Your task to perform on an android device: turn off notifications settings in the gmail app Image 0: 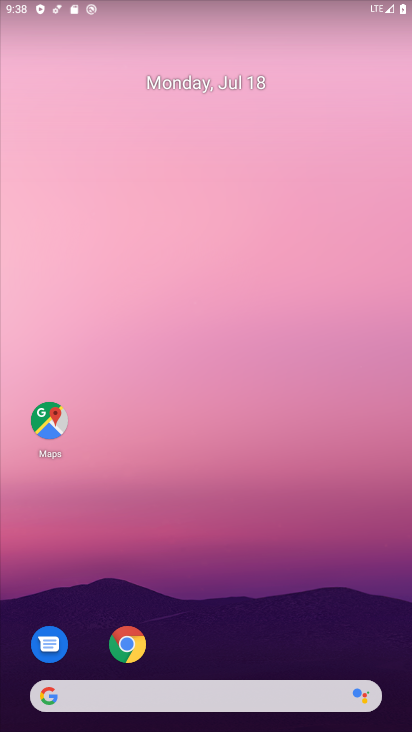
Step 0: drag from (317, 588) to (324, 297)
Your task to perform on an android device: turn off notifications settings in the gmail app Image 1: 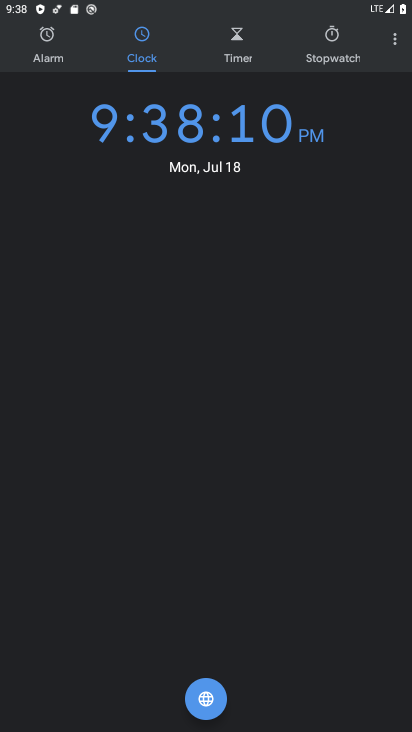
Step 1: press home button
Your task to perform on an android device: turn off notifications settings in the gmail app Image 2: 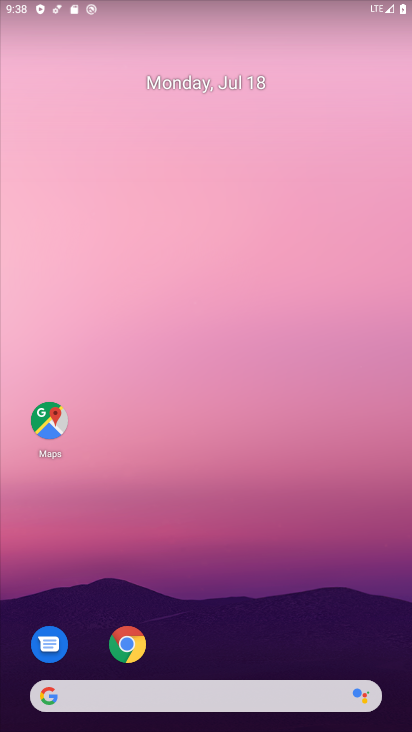
Step 2: drag from (331, 631) to (351, 176)
Your task to perform on an android device: turn off notifications settings in the gmail app Image 3: 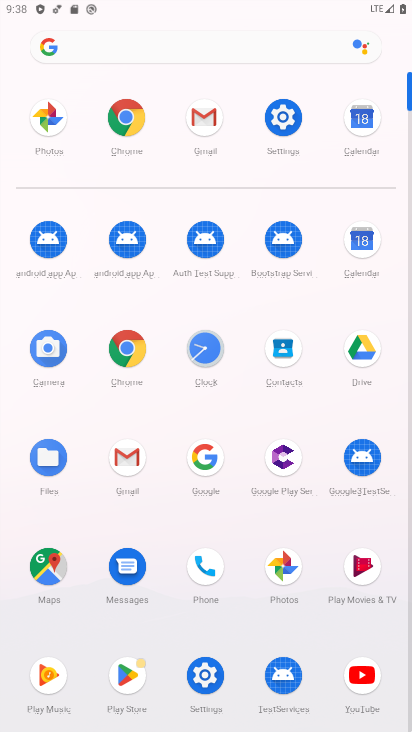
Step 3: click (121, 461)
Your task to perform on an android device: turn off notifications settings in the gmail app Image 4: 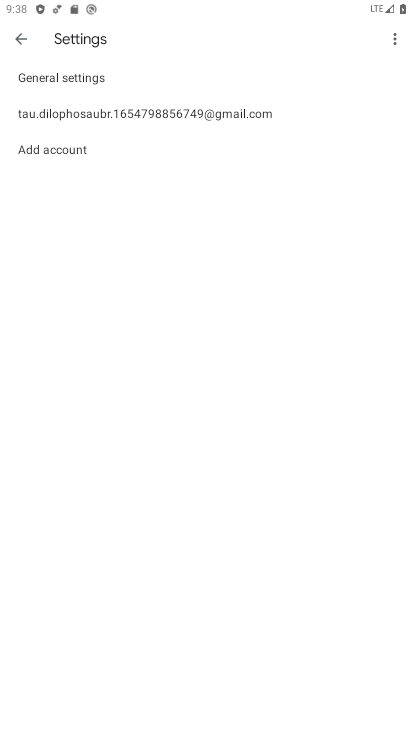
Step 4: click (174, 115)
Your task to perform on an android device: turn off notifications settings in the gmail app Image 5: 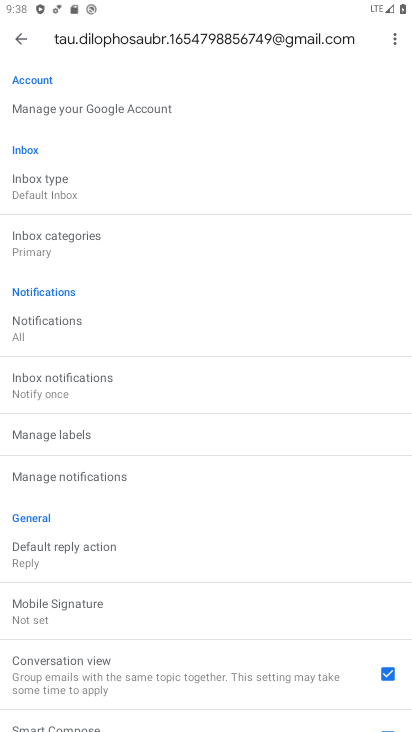
Step 5: drag from (261, 480) to (280, 375)
Your task to perform on an android device: turn off notifications settings in the gmail app Image 6: 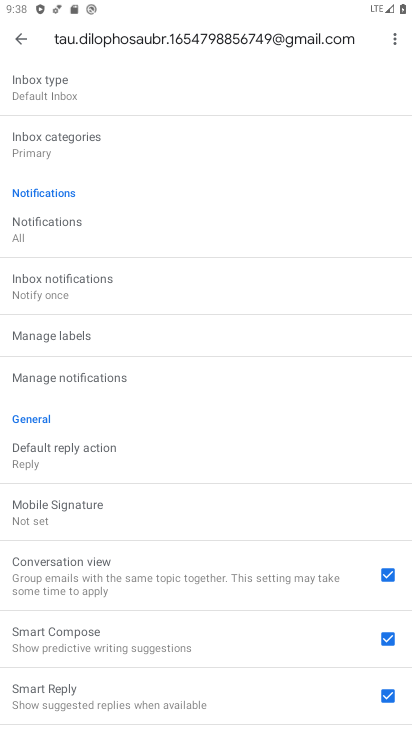
Step 6: drag from (257, 628) to (270, 477)
Your task to perform on an android device: turn off notifications settings in the gmail app Image 7: 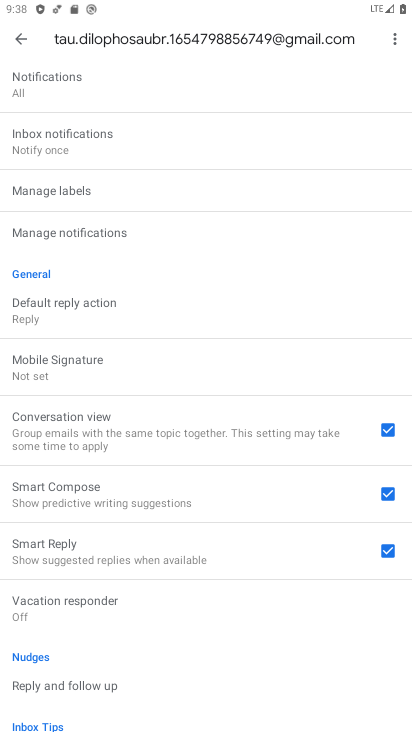
Step 7: drag from (273, 620) to (272, 374)
Your task to perform on an android device: turn off notifications settings in the gmail app Image 8: 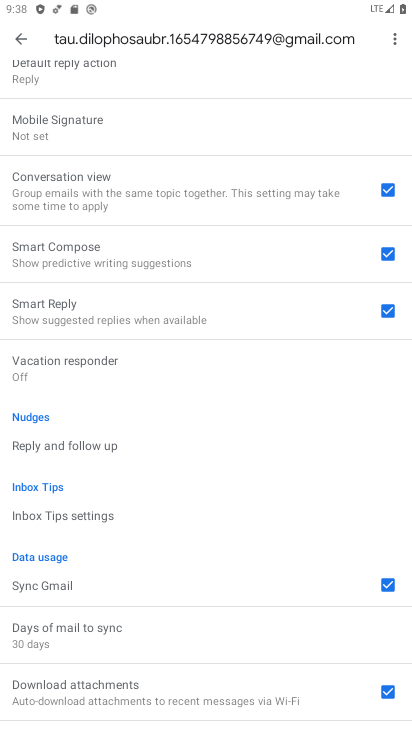
Step 8: drag from (266, 235) to (266, 361)
Your task to perform on an android device: turn off notifications settings in the gmail app Image 9: 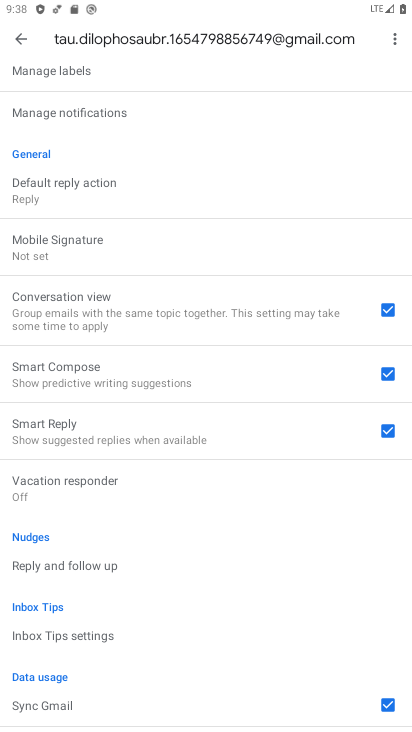
Step 9: drag from (249, 224) to (251, 366)
Your task to perform on an android device: turn off notifications settings in the gmail app Image 10: 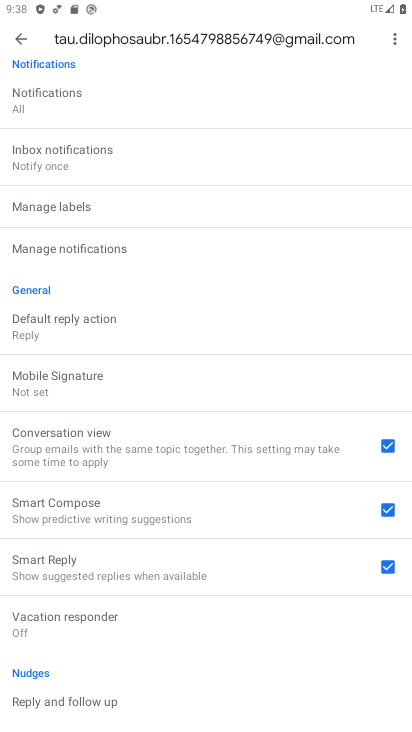
Step 10: drag from (242, 202) to (242, 334)
Your task to perform on an android device: turn off notifications settings in the gmail app Image 11: 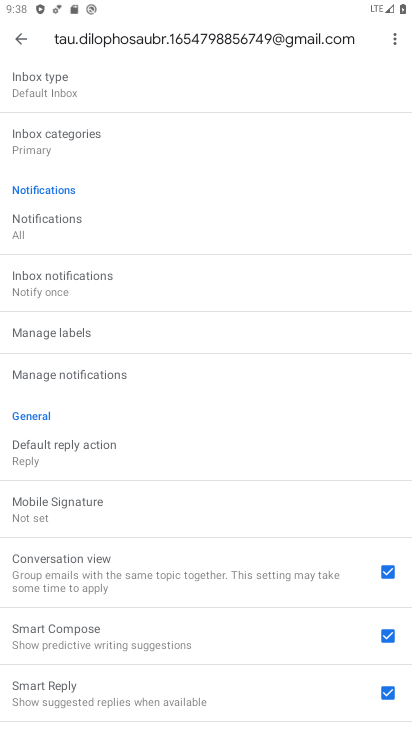
Step 11: drag from (246, 177) to (246, 305)
Your task to perform on an android device: turn off notifications settings in the gmail app Image 12: 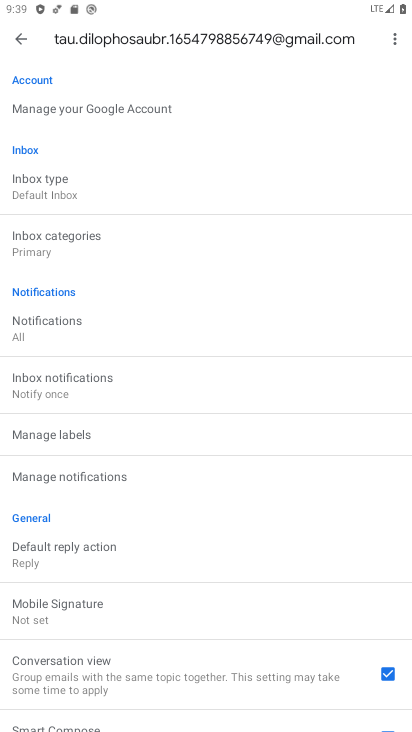
Step 12: drag from (237, 240) to (239, 367)
Your task to perform on an android device: turn off notifications settings in the gmail app Image 13: 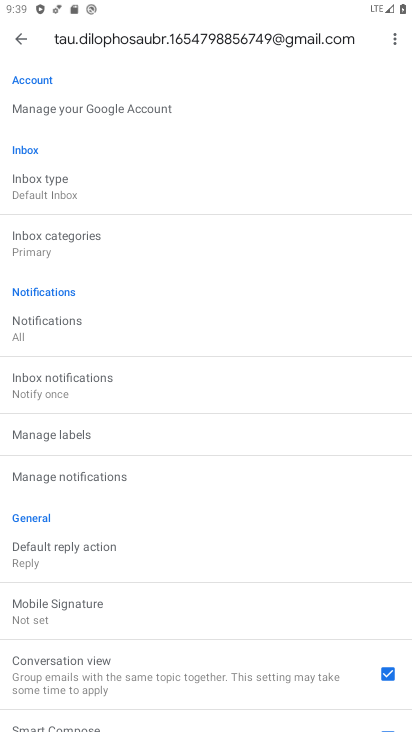
Step 13: click (121, 481)
Your task to perform on an android device: turn off notifications settings in the gmail app Image 14: 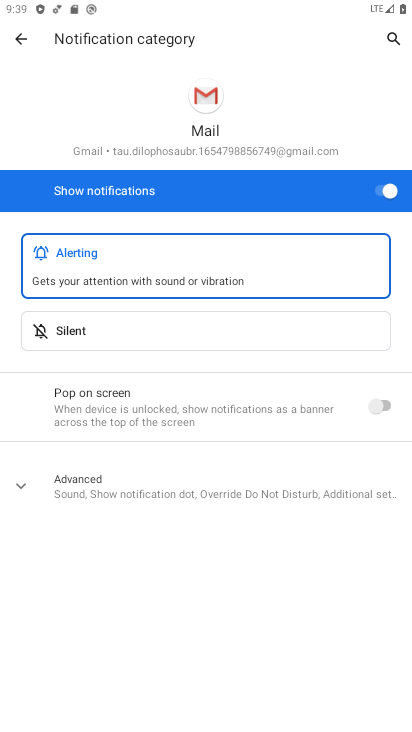
Step 14: click (388, 188)
Your task to perform on an android device: turn off notifications settings in the gmail app Image 15: 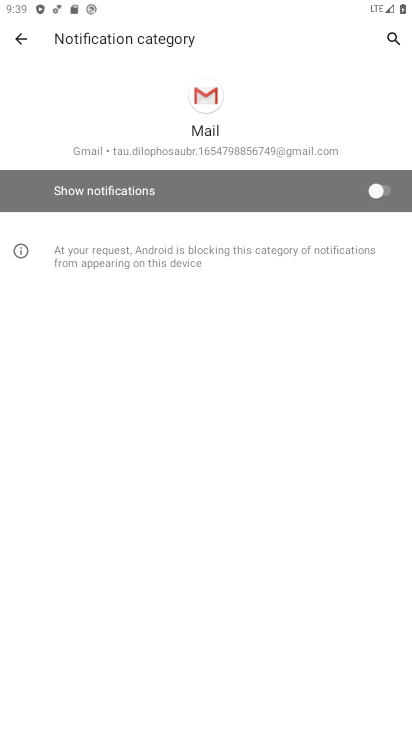
Step 15: task complete